Your task to perform on an android device: delete a single message in the gmail app Image 0: 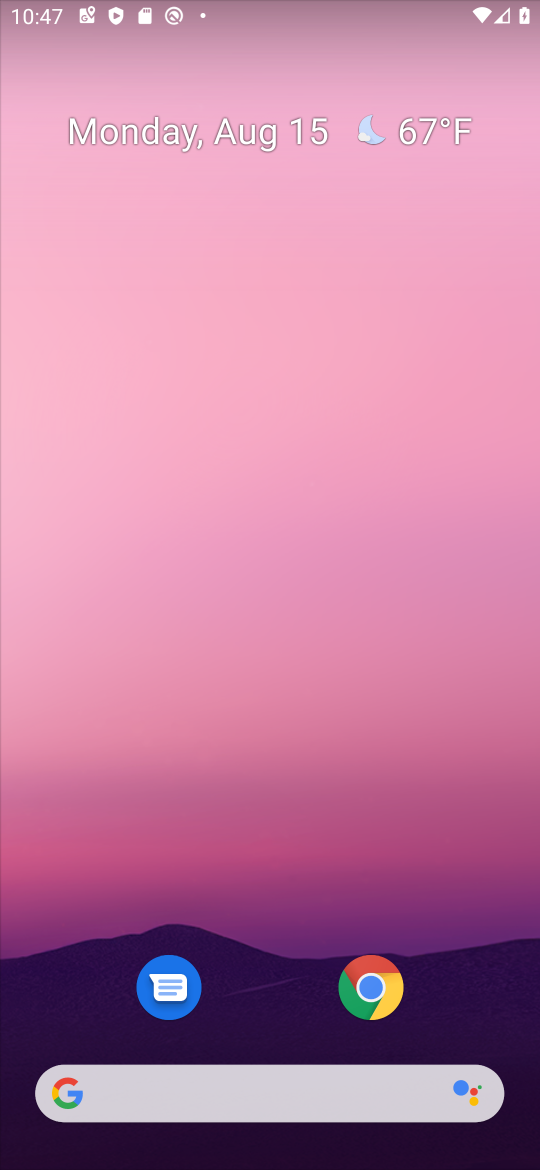
Step 0: drag from (327, 1057) to (233, 83)
Your task to perform on an android device: delete a single message in the gmail app Image 1: 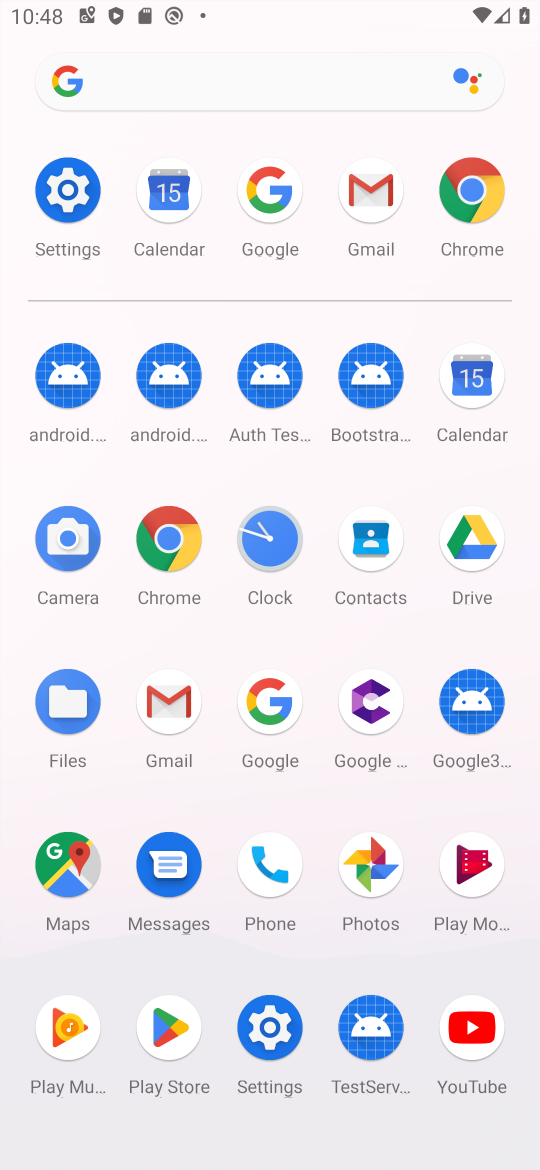
Step 1: click (148, 665)
Your task to perform on an android device: delete a single message in the gmail app Image 2: 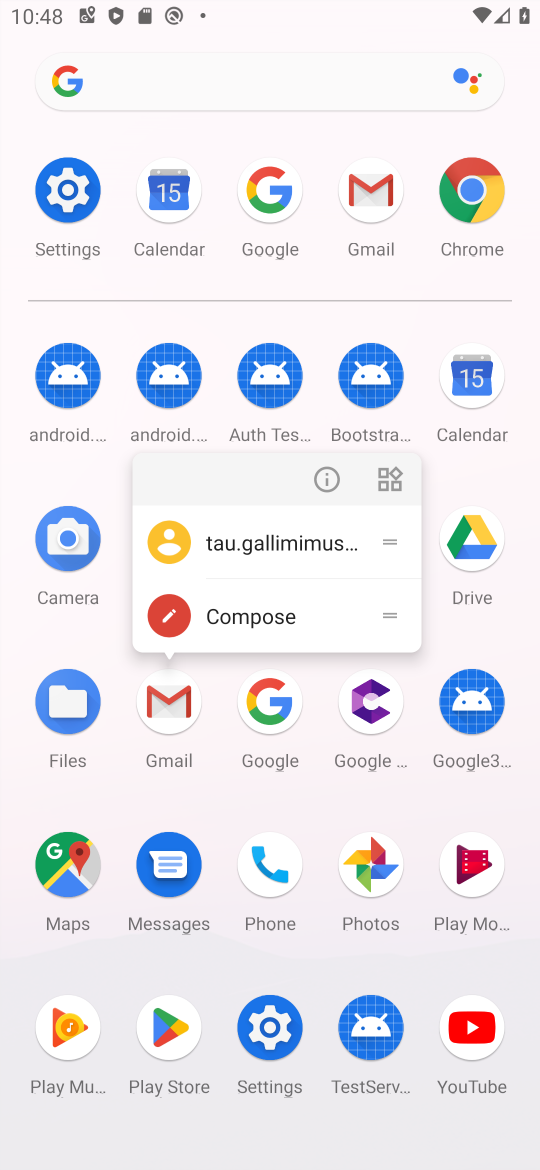
Step 2: click (154, 711)
Your task to perform on an android device: delete a single message in the gmail app Image 3: 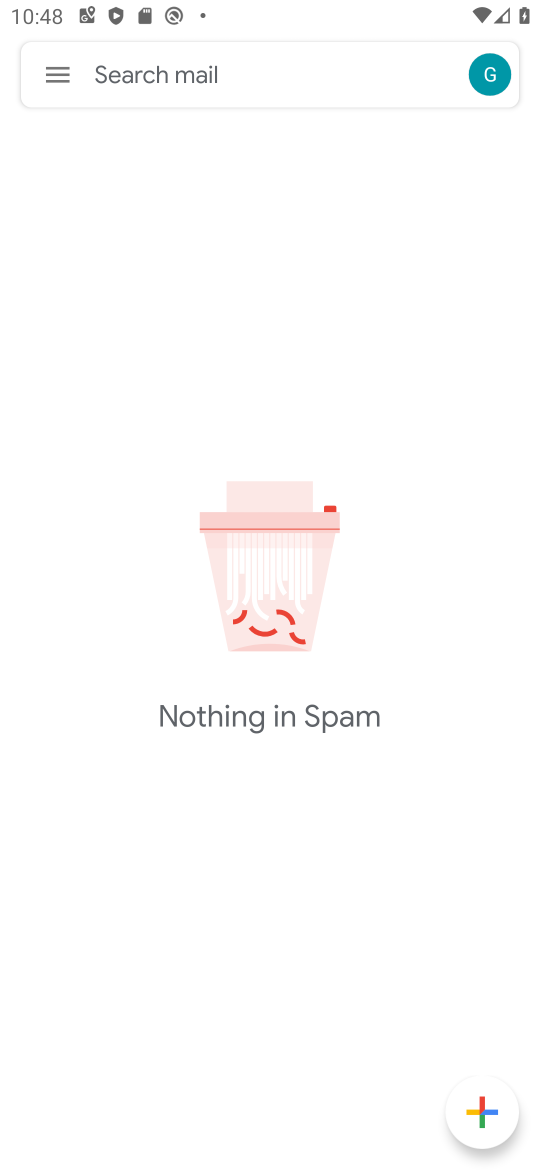
Step 3: drag from (90, 394) to (120, 776)
Your task to perform on an android device: delete a single message in the gmail app Image 4: 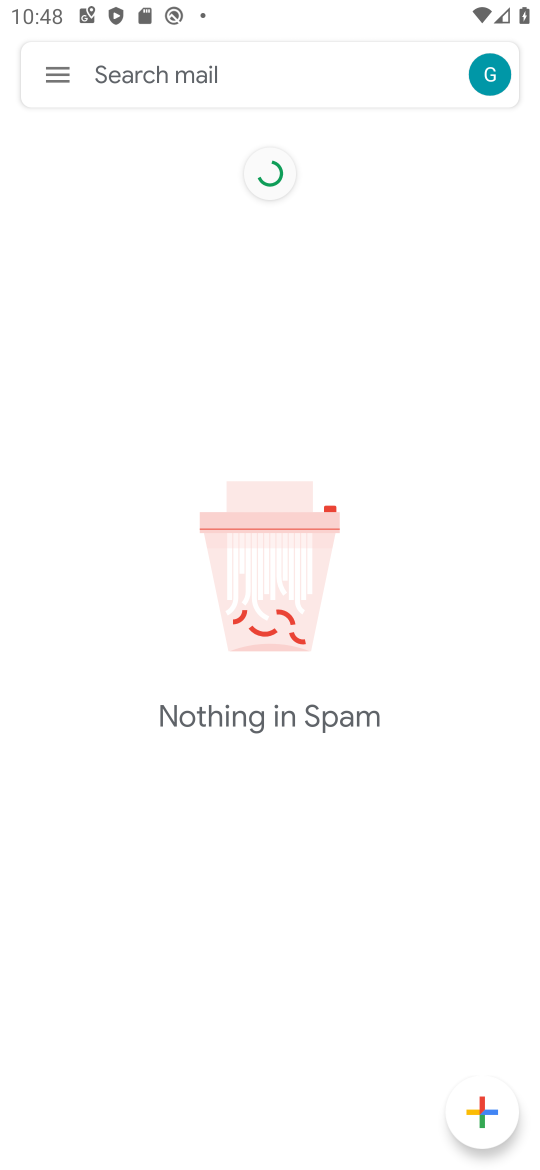
Step 4: click (61, 62)
Your task to perform on an android device: delete a single message in the gmail app Image 5: 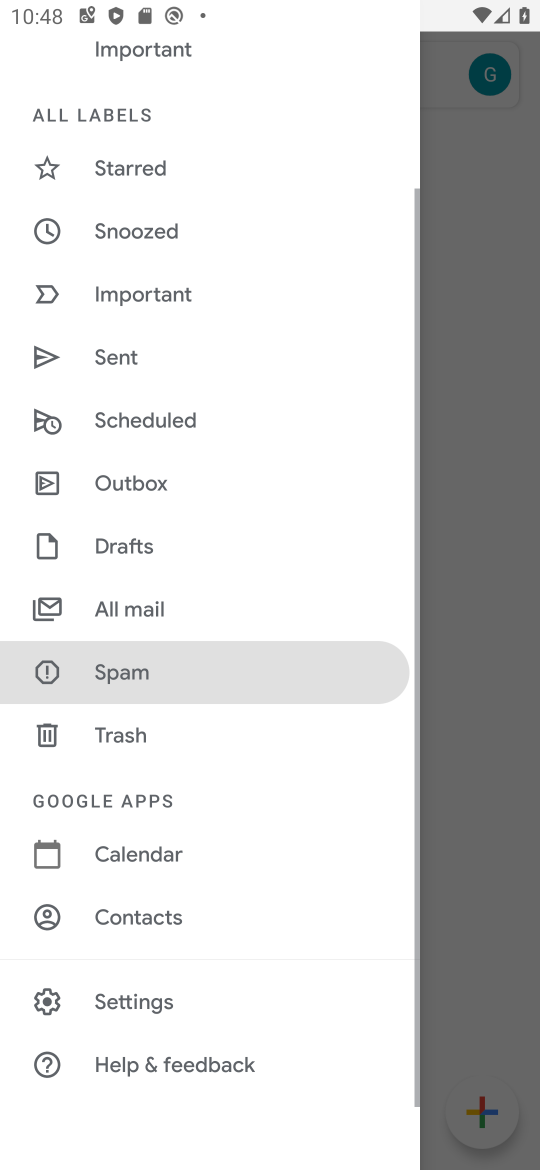
Step 5: drag from (93, 169) to (210, 943)
Your task to perform on an android device: delete a single message in the gmail app Image 6: 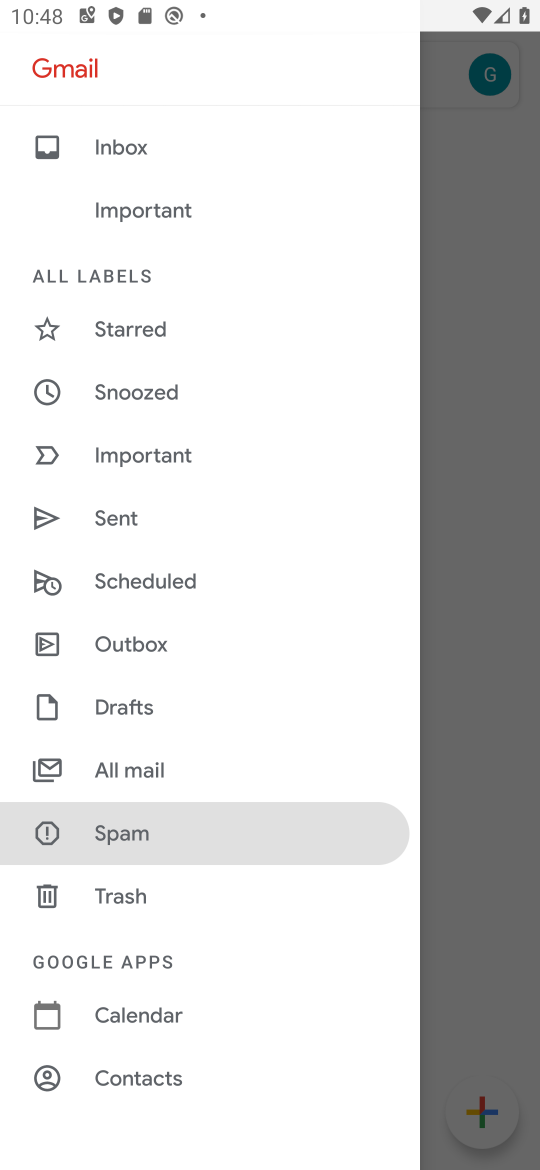
Step 6: click (109, 148)
Your task to perform on an android device: delete a single message in the gmail app Image 7: 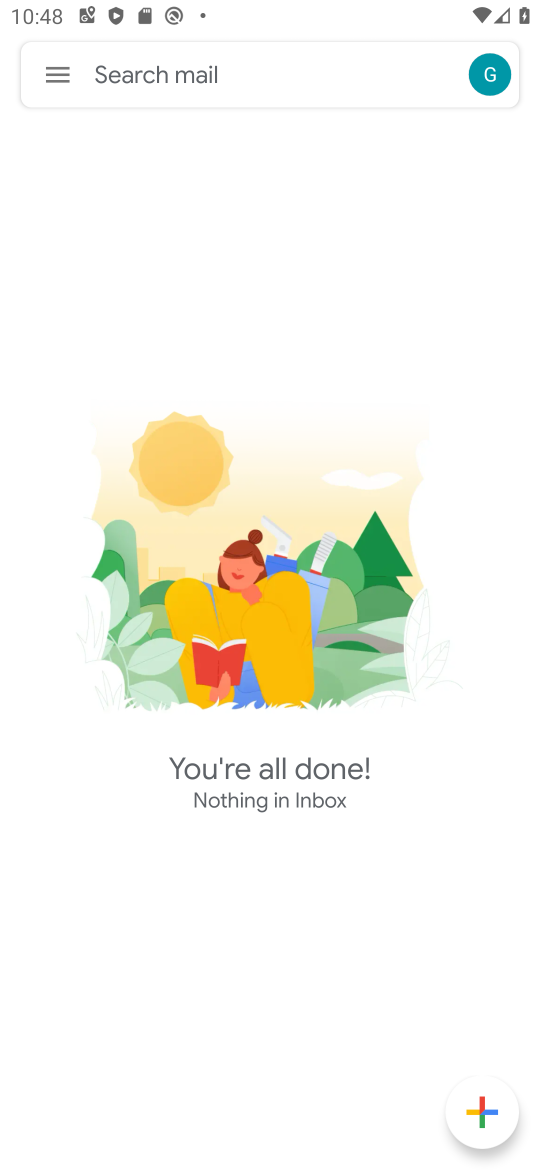
Step 7: task complete